Your task to perform on an android device: Open accessibility settings Image 0: 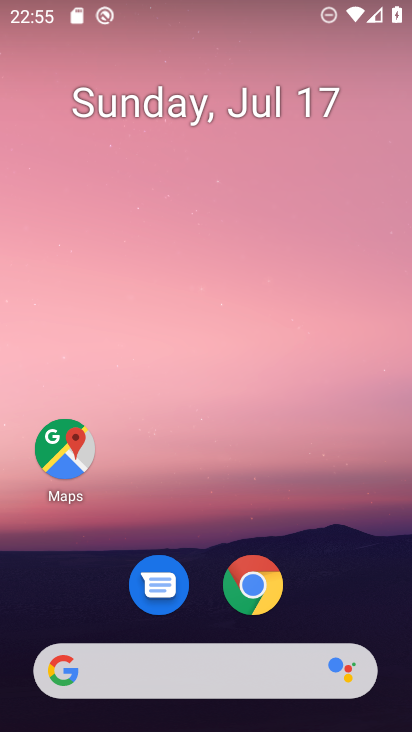
Step 0: drag from (208, 679) to (286, 193)
Your task to perform on an android device: Open accessibility settings Image 1: 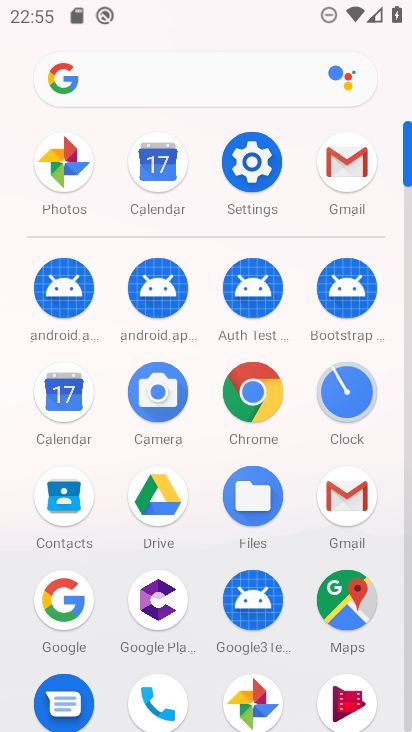
Step 1: click (243, 157)
Your task to perform on an android device: Open accessibility settings Image 2: 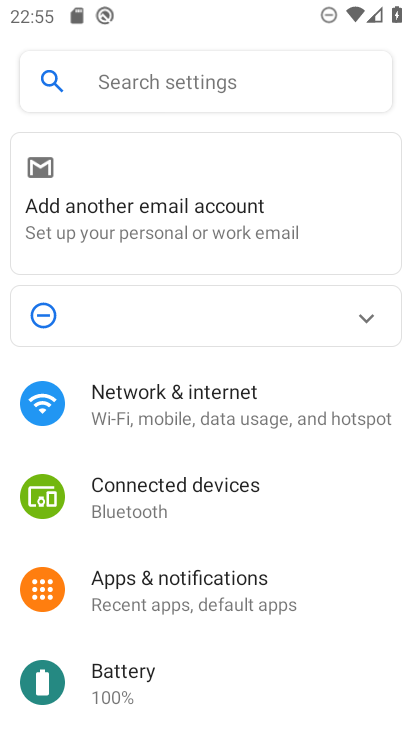
Step 2: drag from (254, 666) to (360, 95)
Your task to perform on an android device: Open accessibility settings Image 3: 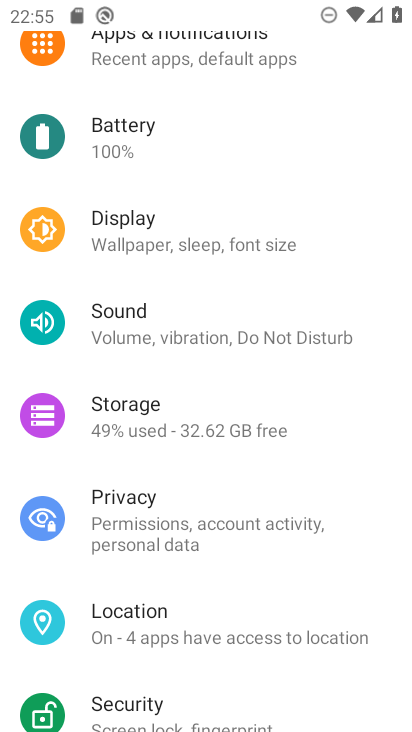
Step 3: drag from (258, 590) to (381, 59)
Your task to perform on an android device: Open accessibility settings Image 4: 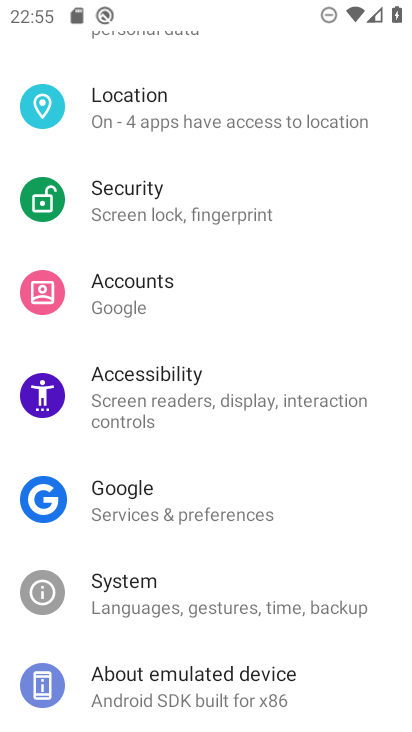
Step 4: click (156, 383)
Your task to perform on an android device: Open accessibility settings Image 5: 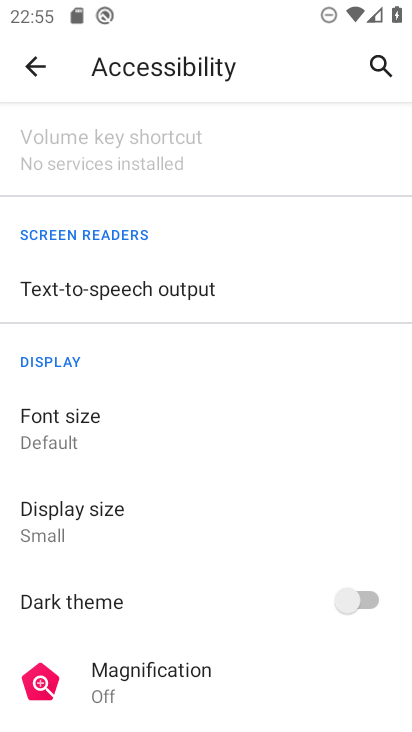
Step 5: task complete